Your task to perform on an android device: install app "PlayWell" Image 0: 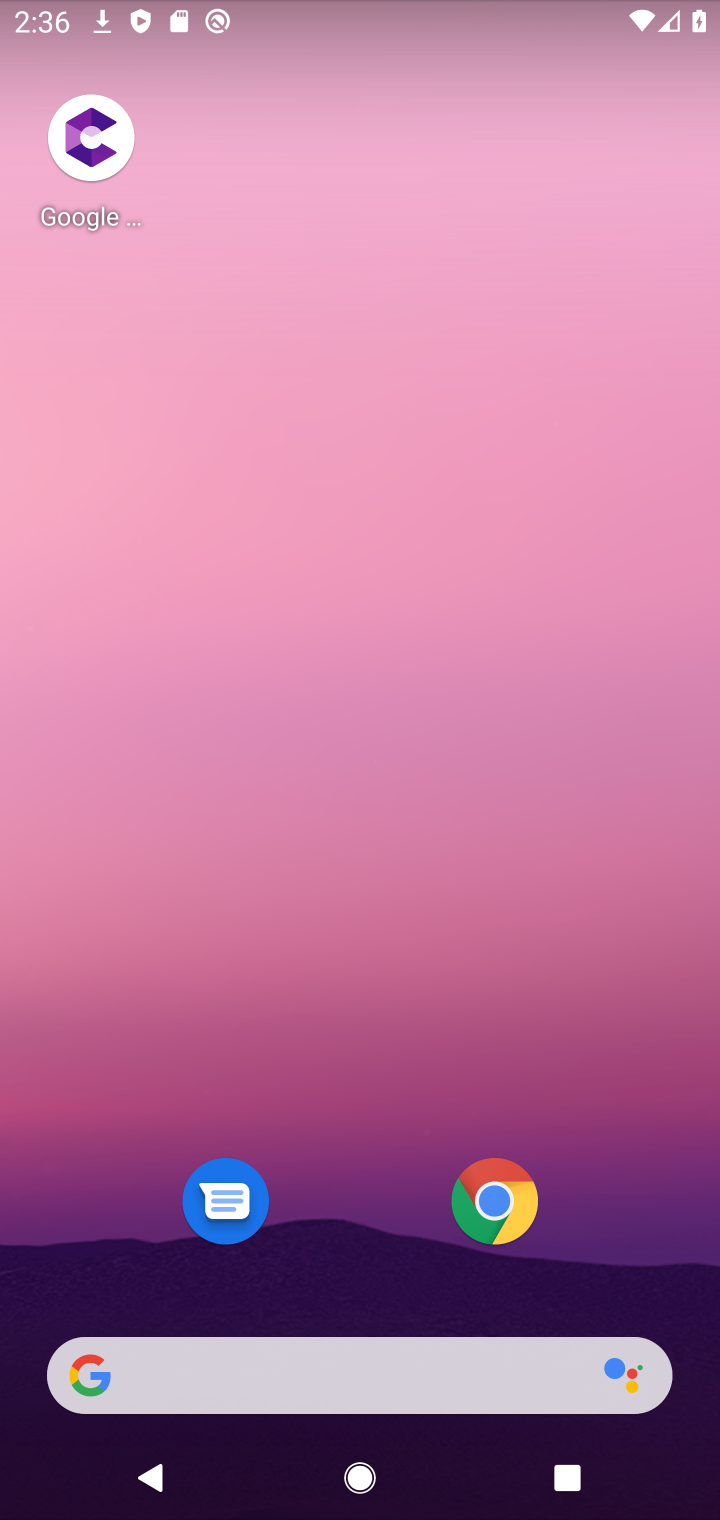
Step 0: drag from (288, 791) to (228, 180)
Your task to perform on an android device: install app "PlayWell" Image 1: 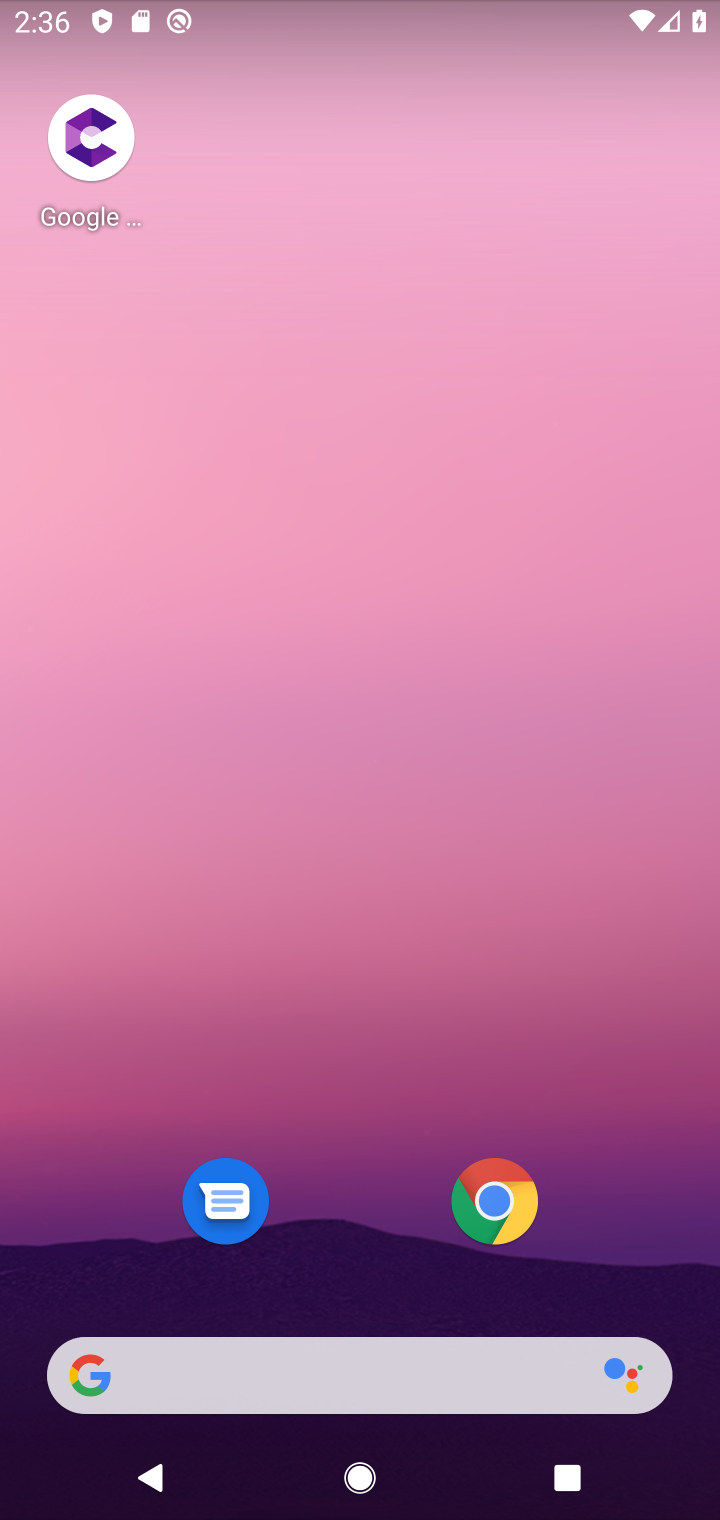
Step 1: drag from (330, 1036) to (382, 4)
Your task to perform on an android device: install app "PlayWell" Image 2: 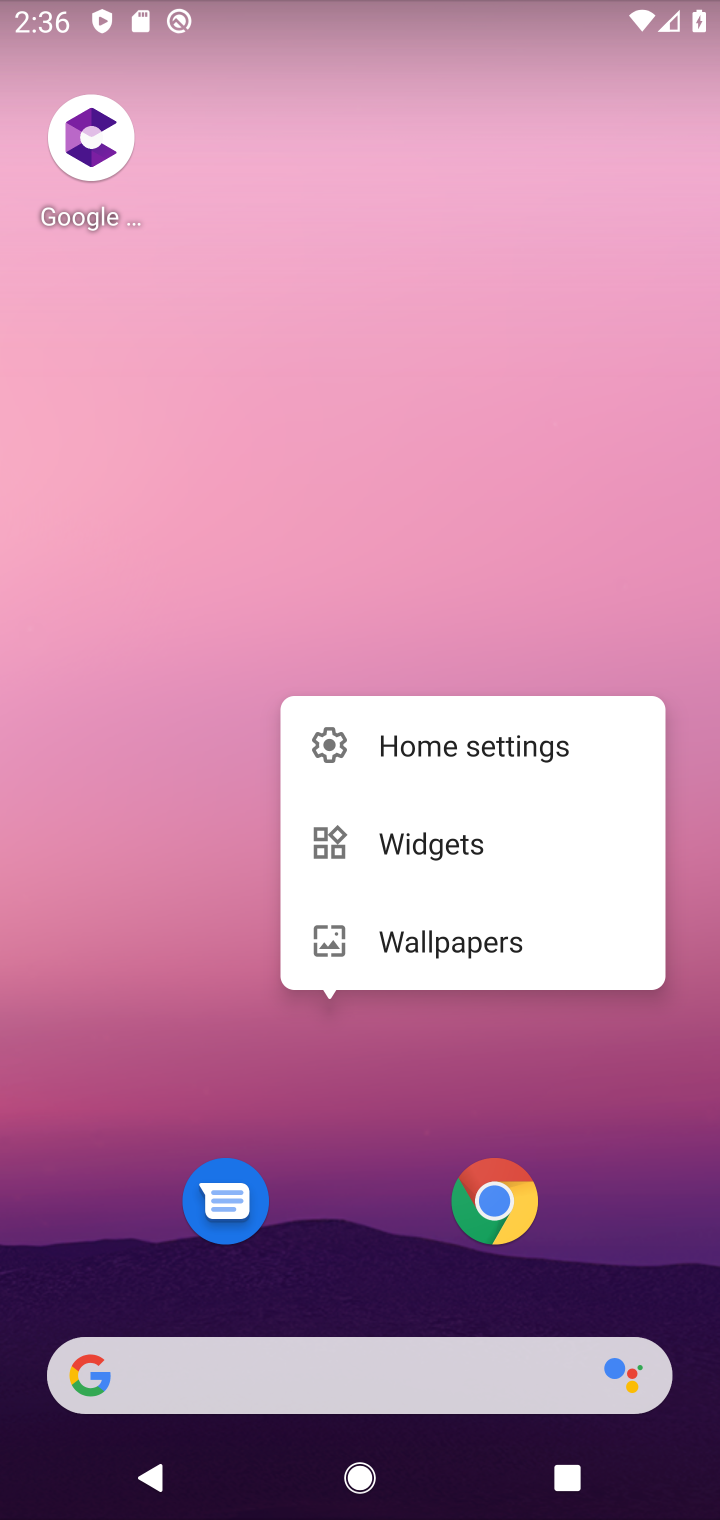
Step 2: click (334, 1121)
Your task to perform on an android device: install app "PlayWell" Image 3: 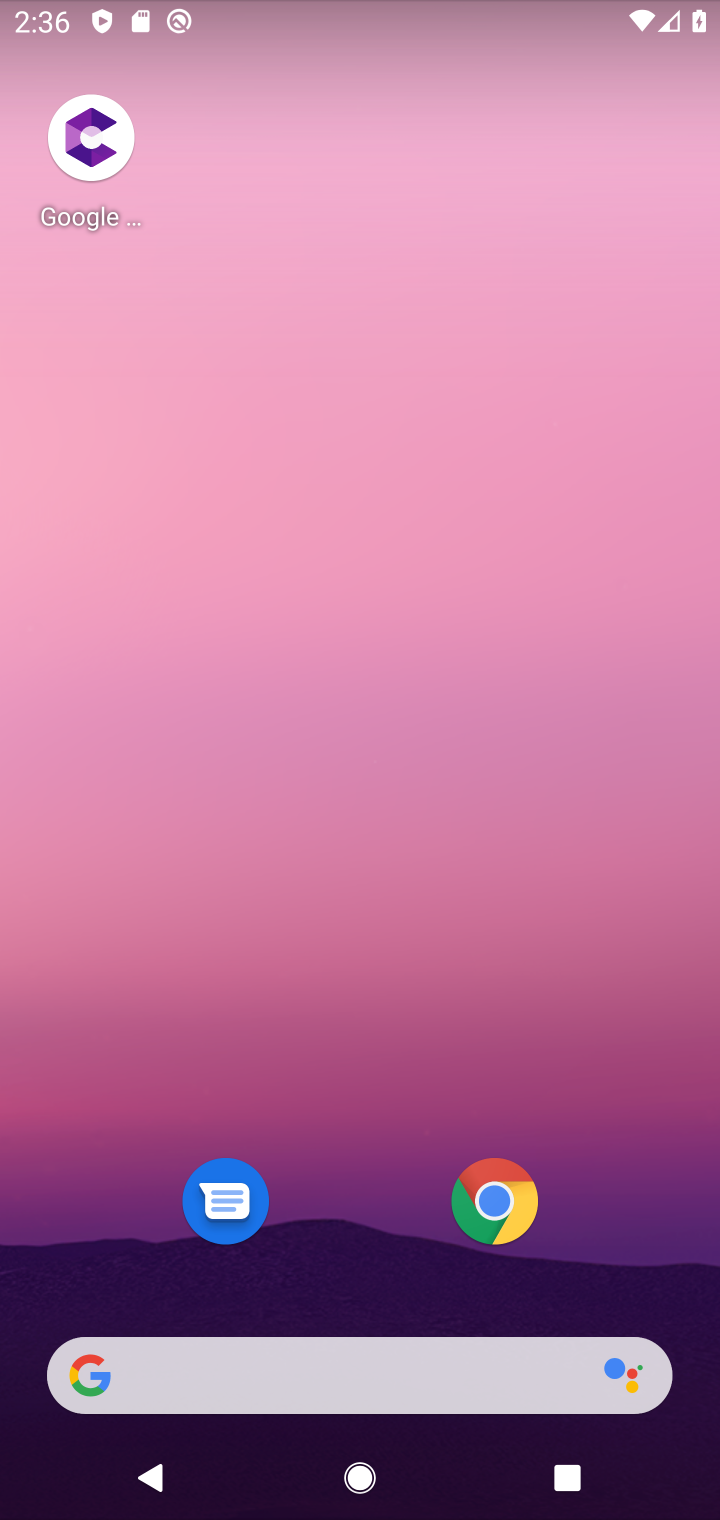
Step 3: drag from (579, 1008) to (447, 133)
Your task to perform on an android device: install app "PlayWell" Image 4: 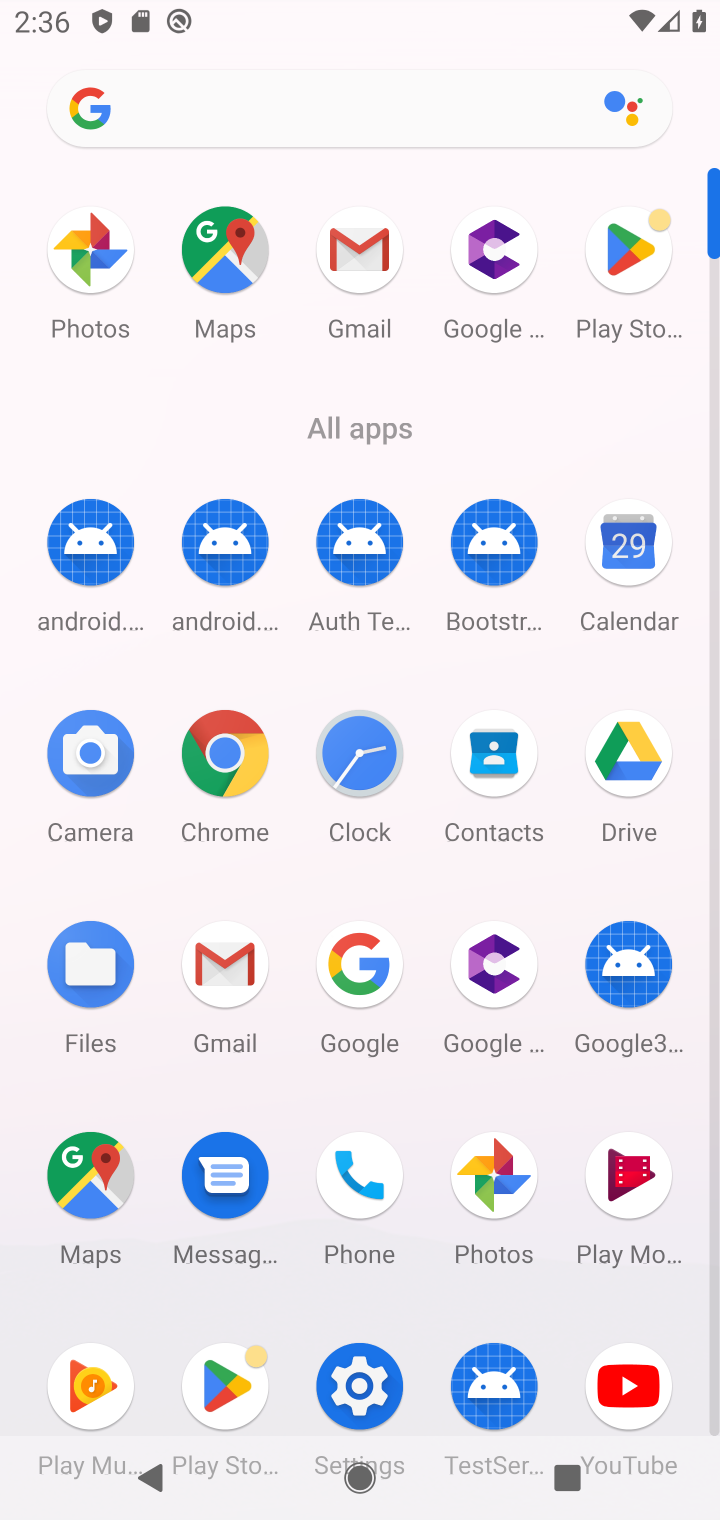
Step 4: click (637, 276)
Your task to perform on an android device: install app "PlayWell" Image 5: 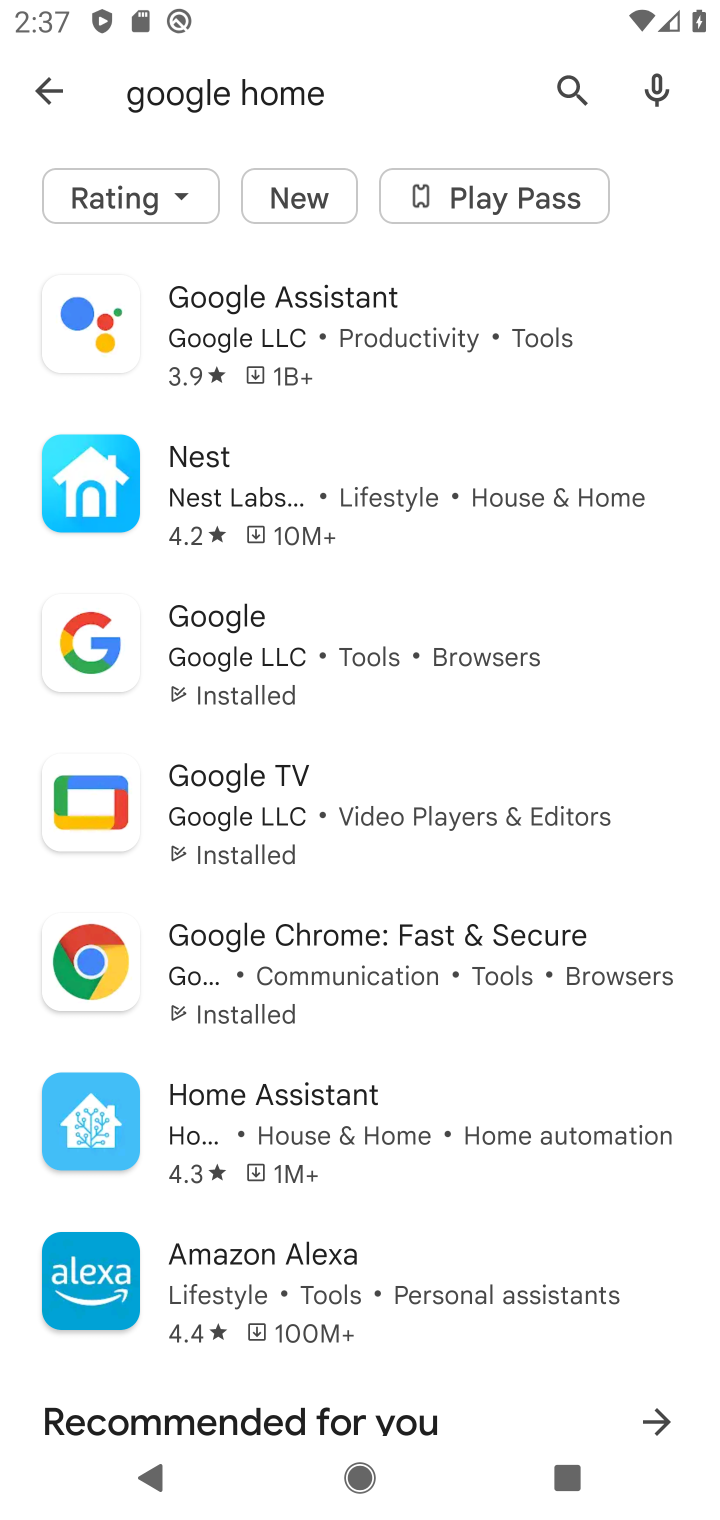
Step 5: click (569, 90)
Your task to perform on an android device: install app "PlayWell" Image 6: 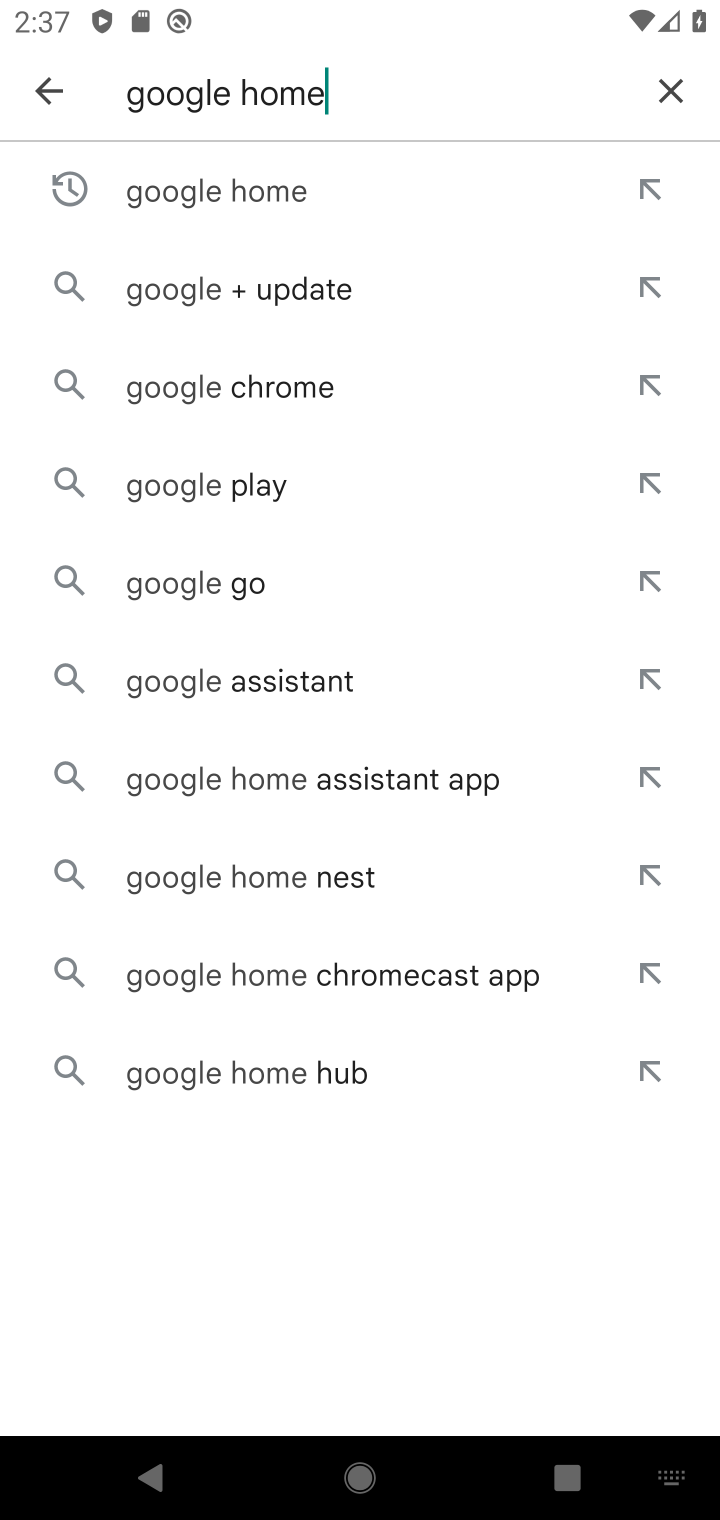
Step 6: click (677, 90)
Your task to perform on an android device: install app "PlayWell" Image 7: 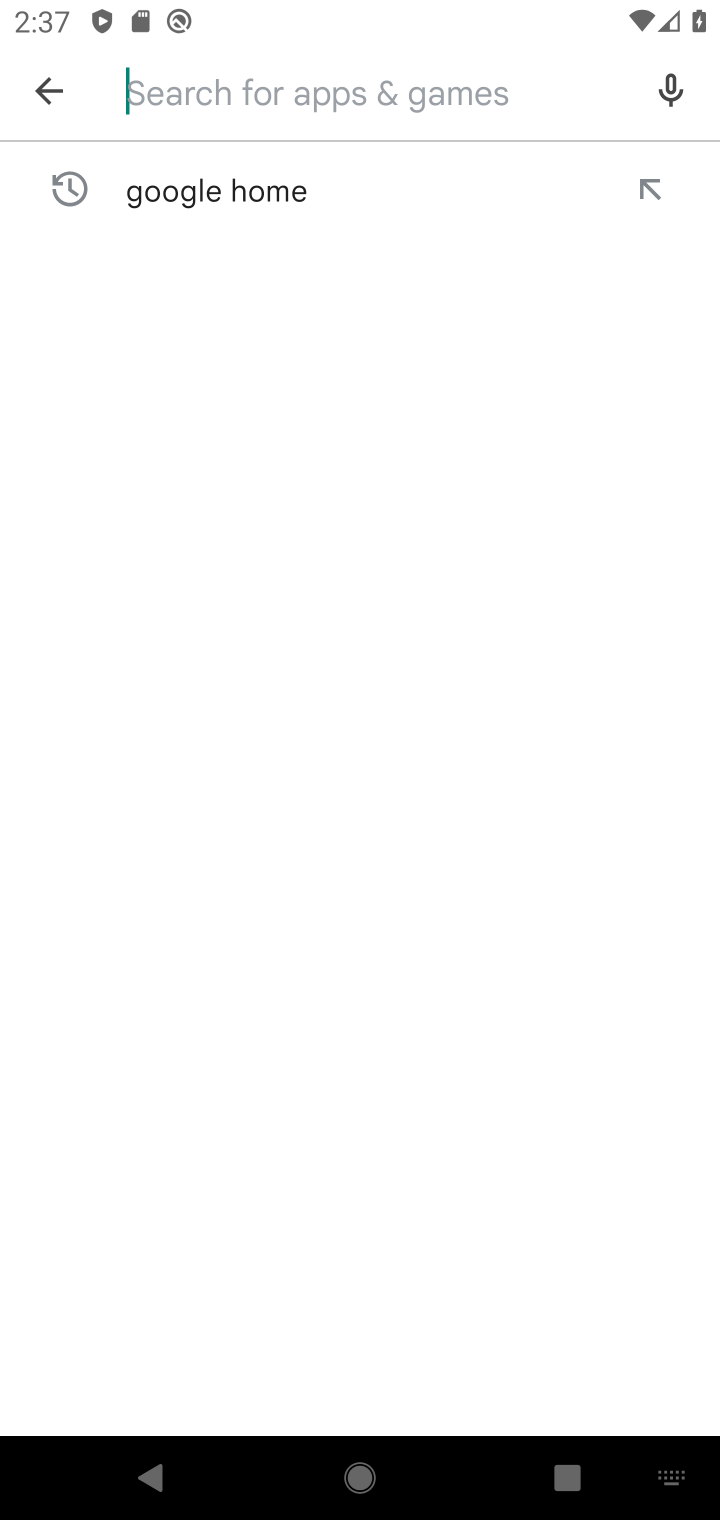
Step 7: click (336, 82)
Your task to perform on an android device: install app "PlayWell" Image 8: 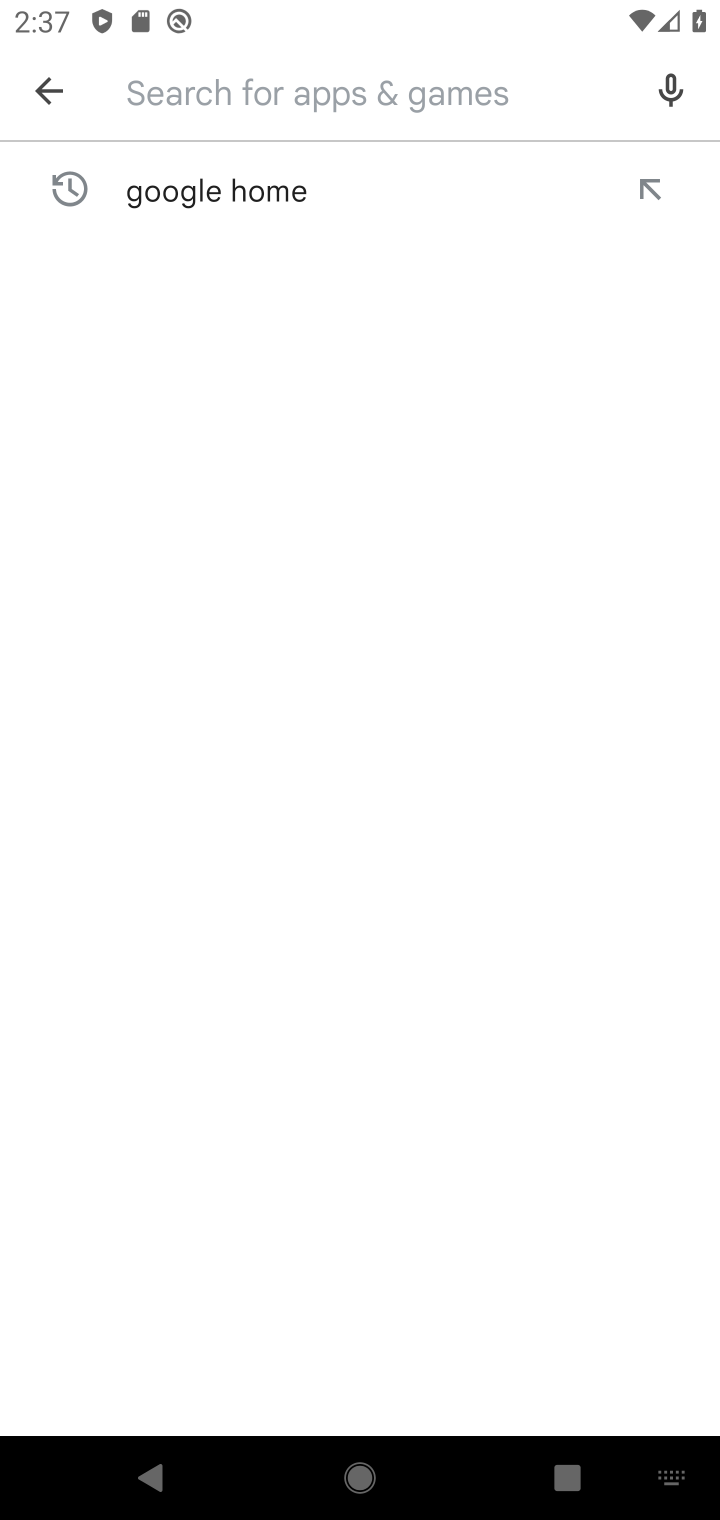
Step 8: click (699, 865)
Your task to perform on an android device: install app "PlayWell" Image 9: 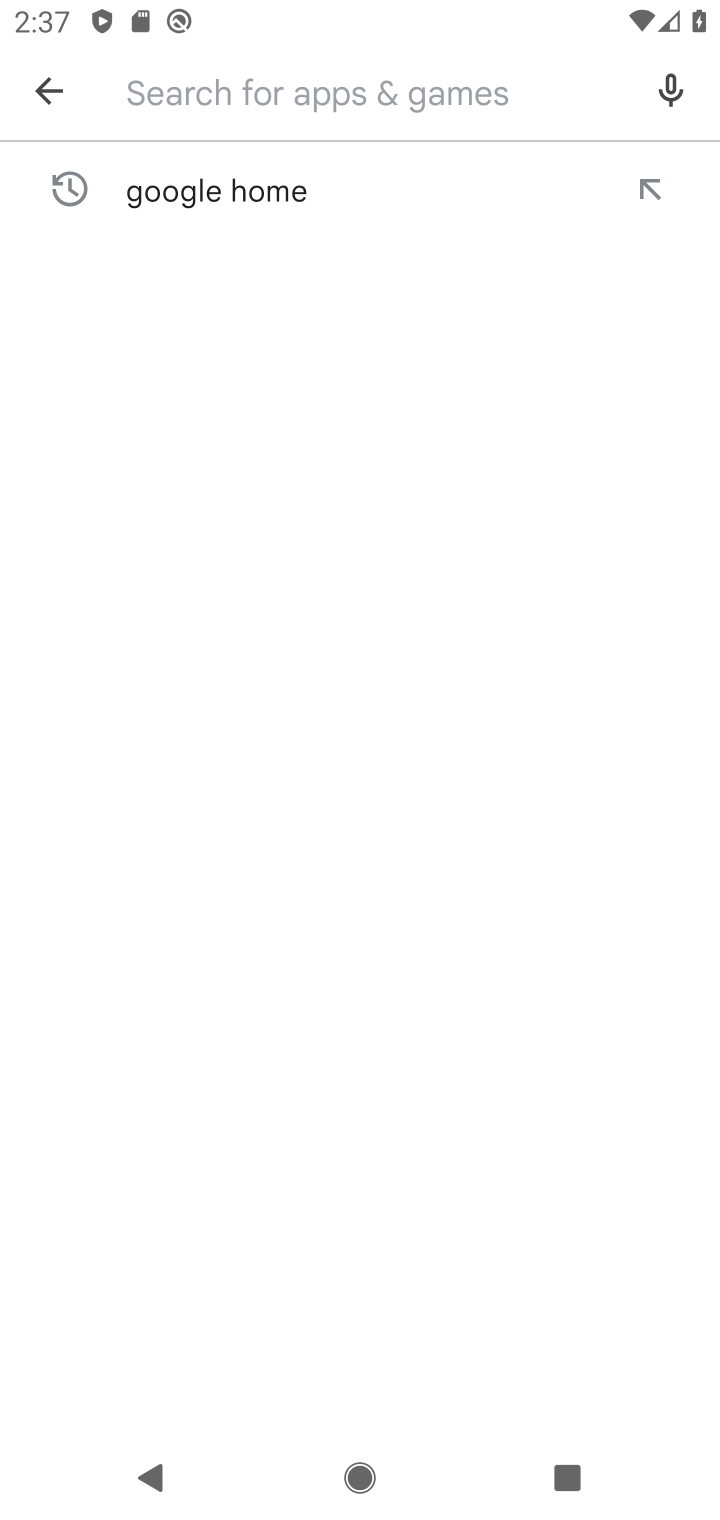
Step 9: type "PlayWell"
Your task to perform on an android device: install app "PlayWell" Image 10: 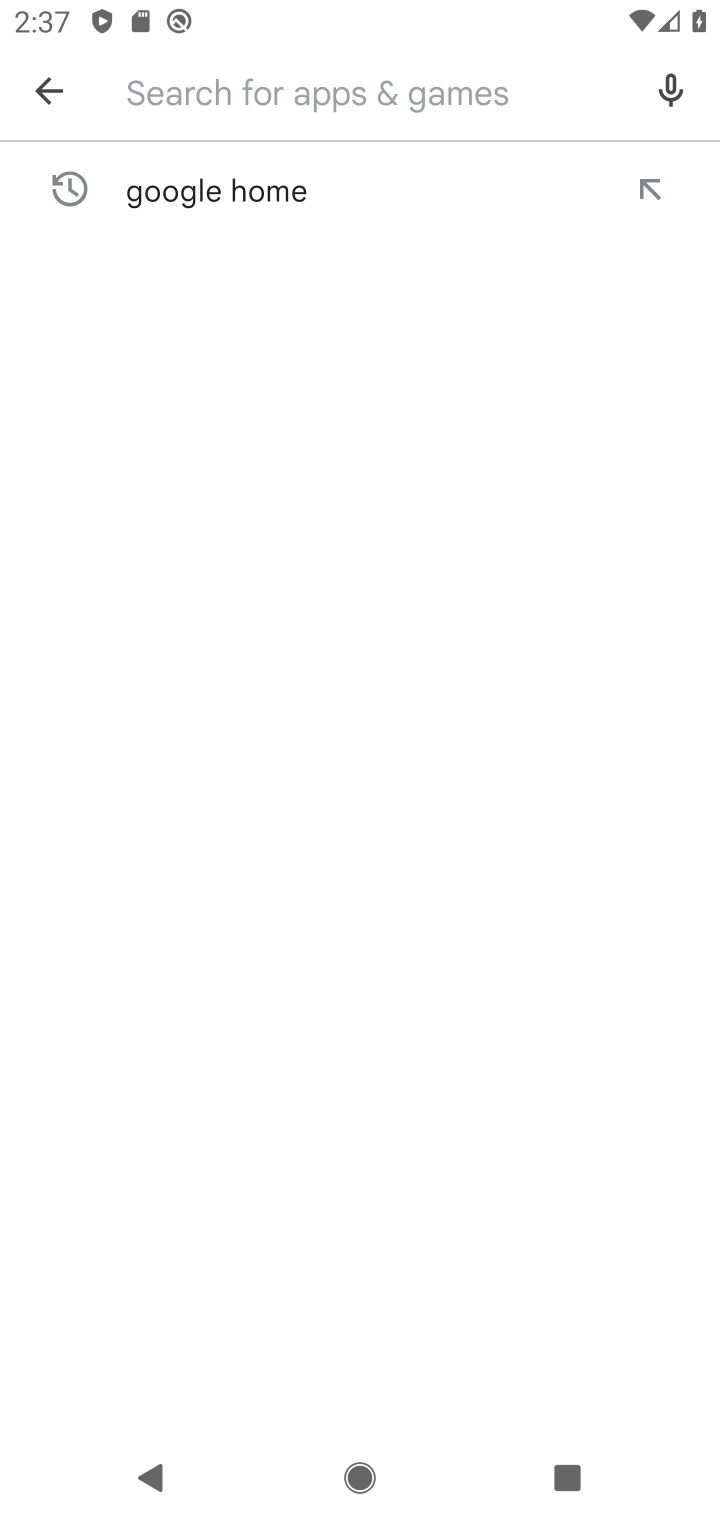
Step 10: drag from (715, 900) to (337, 531)
Your task to perform on an android device: install app "PlayWell" Image 11: 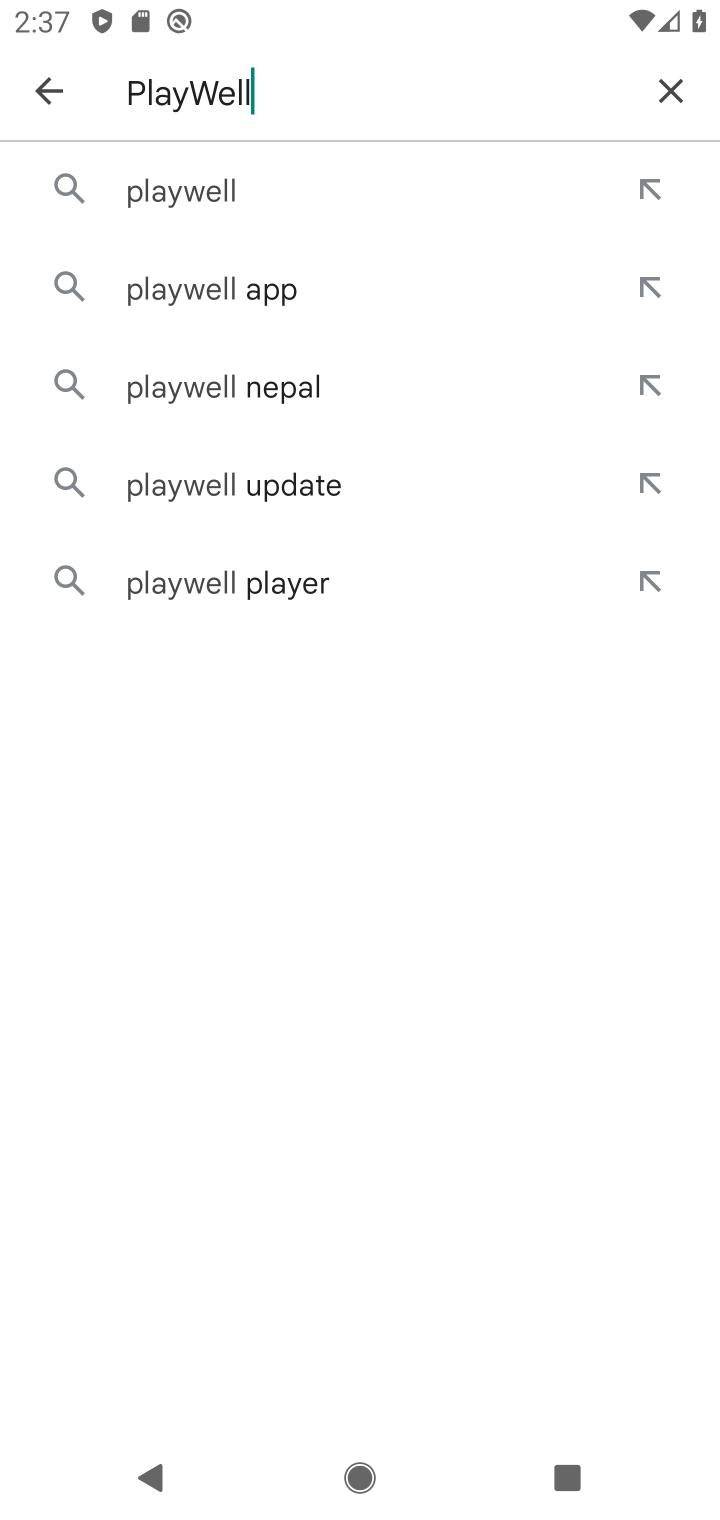
Step 11: click (154, 217)
Your task to perform on an android device: install app "PlayWell" Image 12: 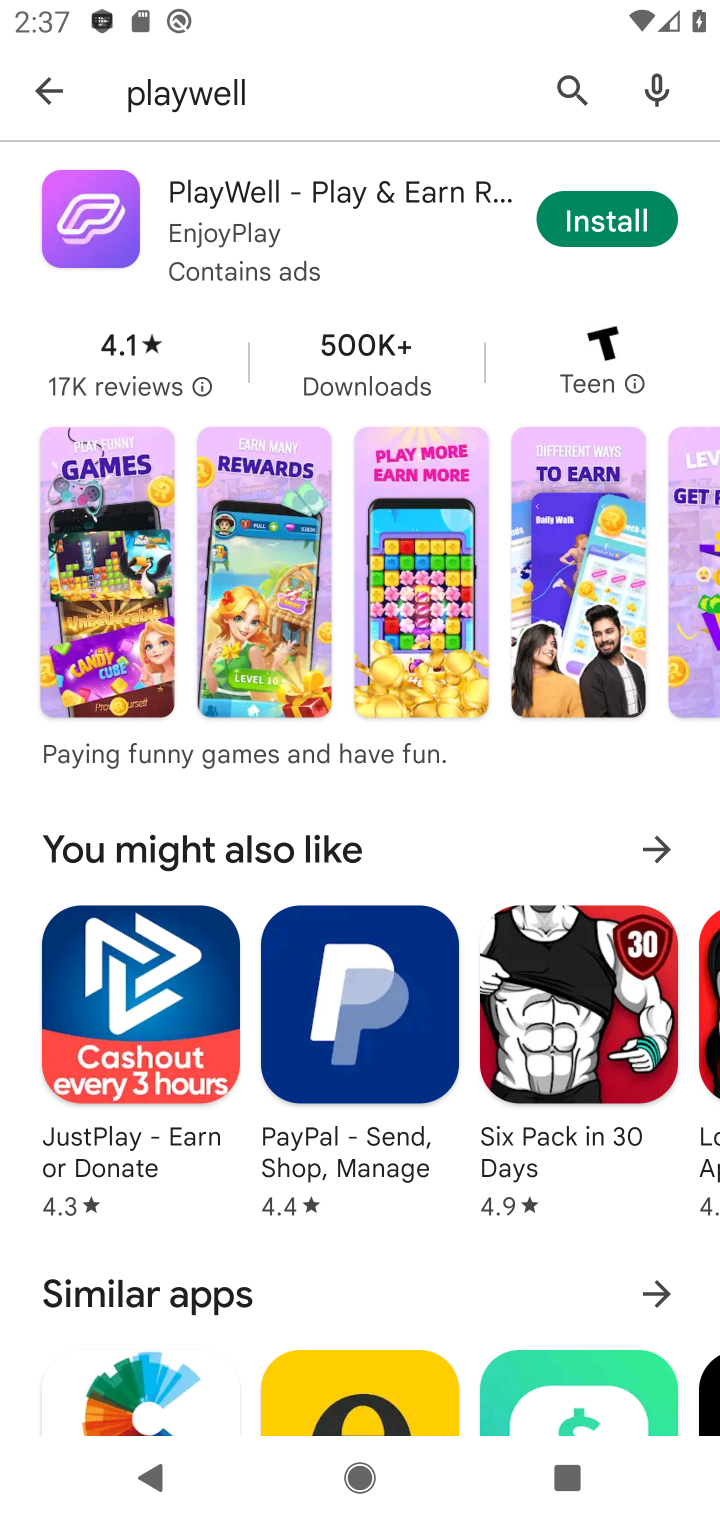
Step 12: click (589, 238)
Your task to perform on an android device: install app "PlayWell" Image 13: 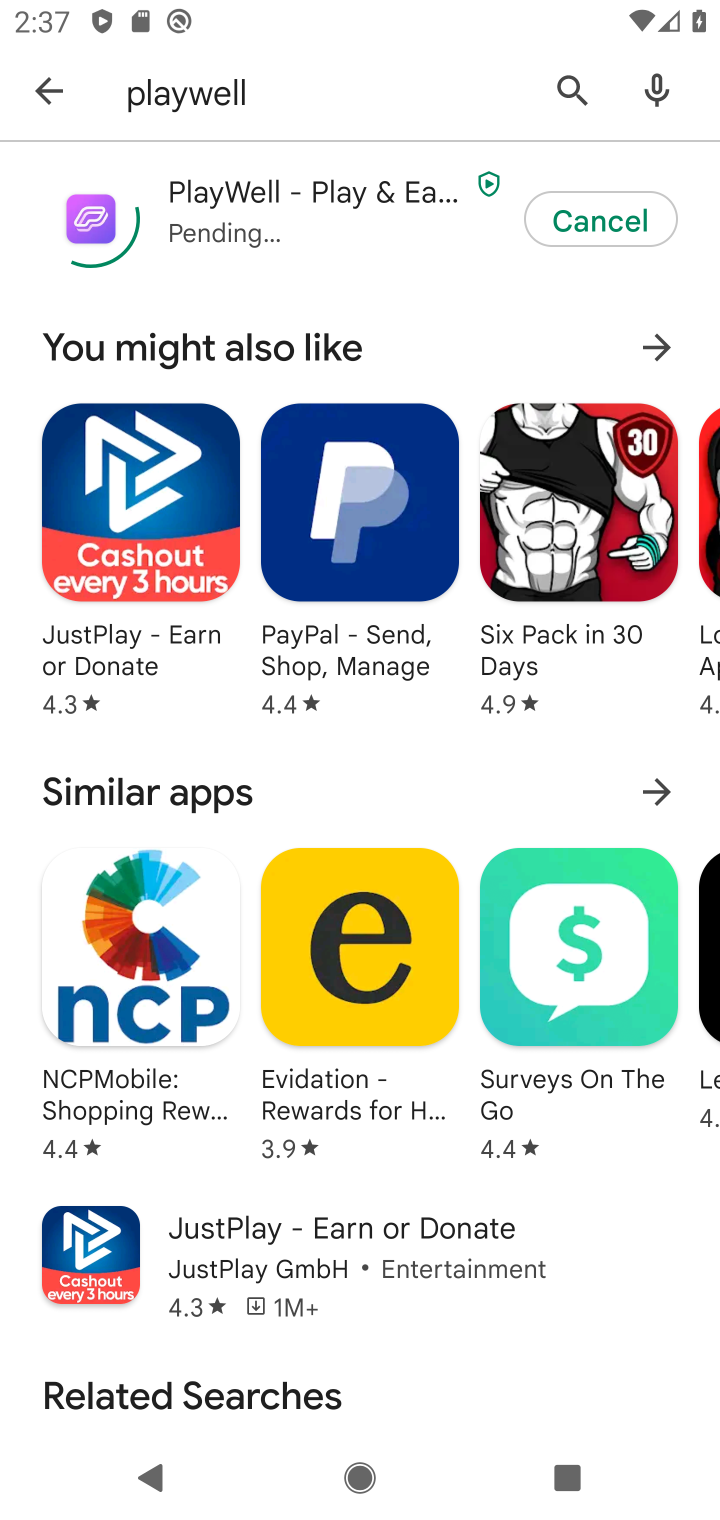
Step 13: click (268, 186)
Your task to perform on an android device: install app "PlayWell" Image 14: 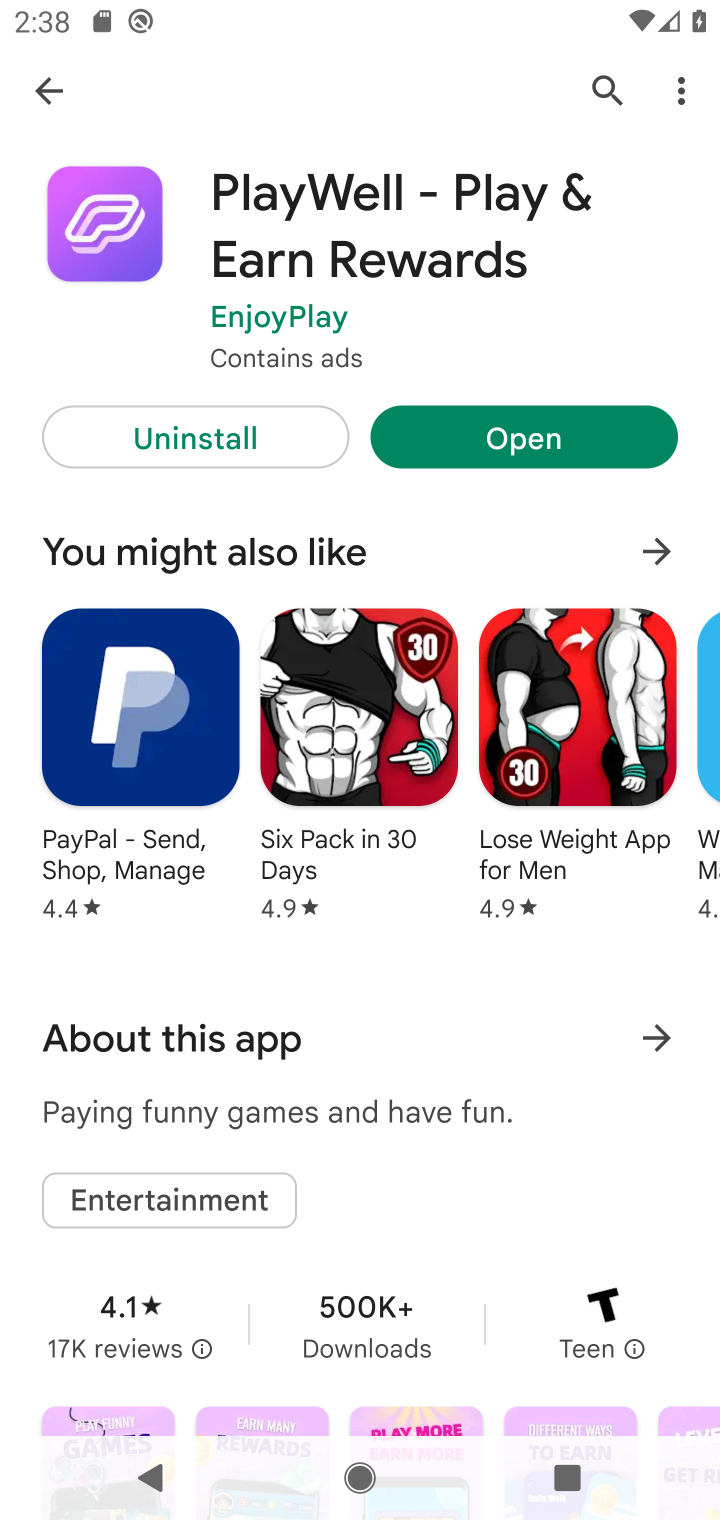
Step 14: task complete